Your task to perform on an android device: stop showing notifications on the lock screen Image 0: 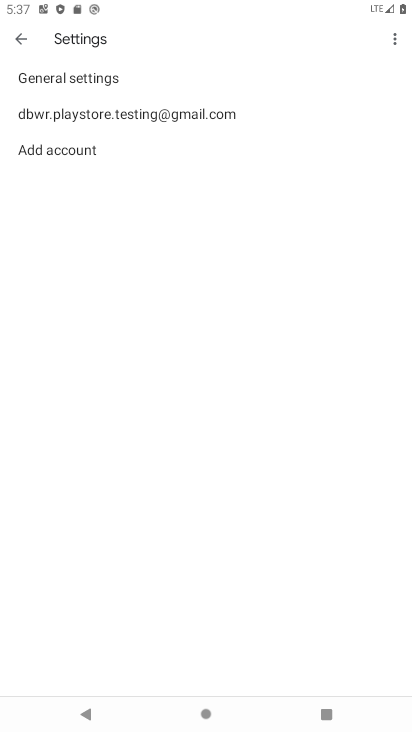
Step 0: press home button
Your task to perform on an android device: stop showing notifications on the lock screen Image 1: 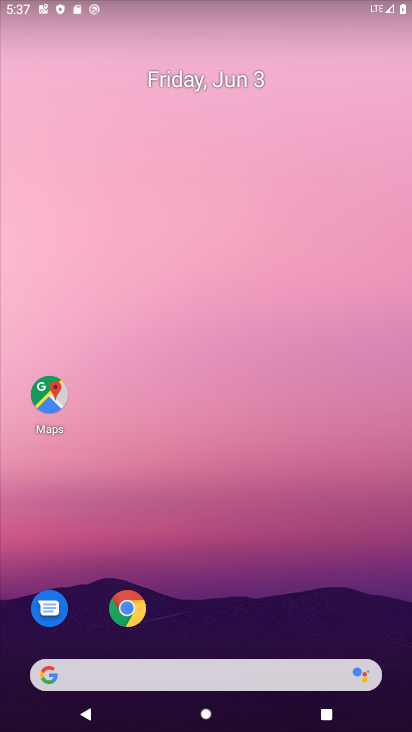
Step 1: drag from (285, 556) to (274, 349)
Your task to perform on an android device: stop showing notifications on the lock screen Image 2: 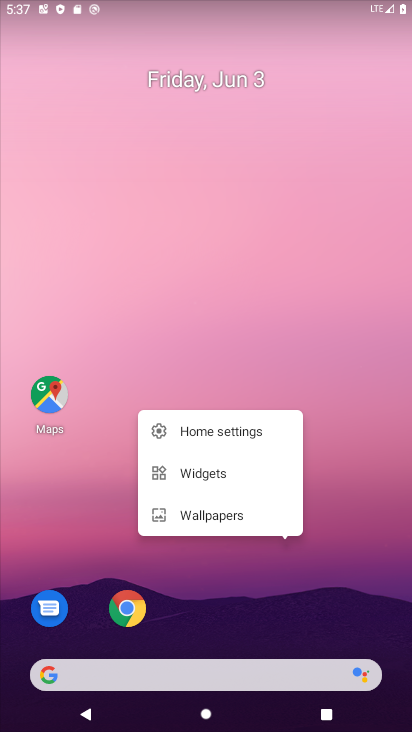
Step 2: click (273, 346)
Your task to perform on an android device: stop showing notifications on the lock screen Image 3: 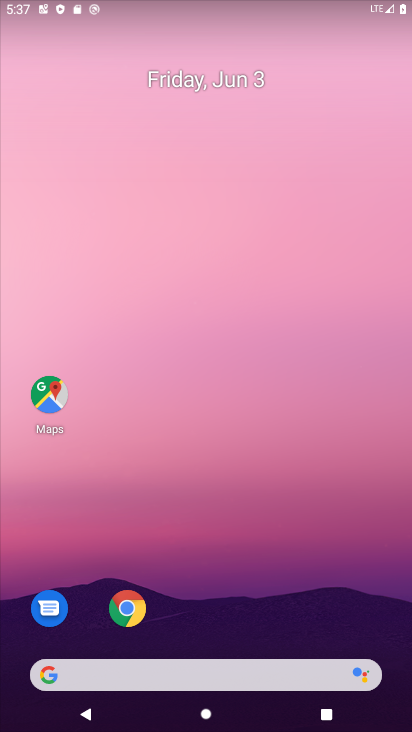
Step 3: drag from (298, 604) to (273, 214)
Your task to perform on an android device: stop showing notifications on the lock screen Image 4: 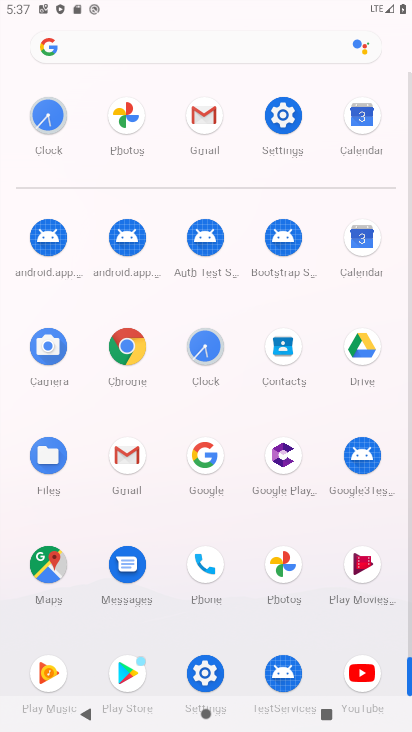
Step 4: click (285, 116)
Your task to perform on an android device: stop showing notifications on the lock screen Image 5: 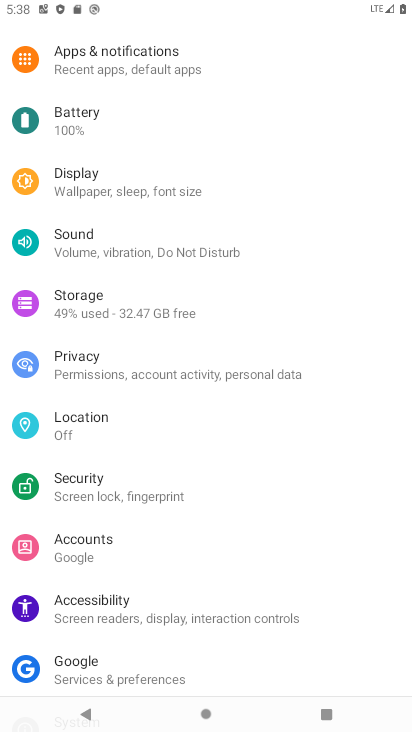
Step 5: click (119, 78)
Your task to perform on an android device: stop showing notifications on the lock screen Image 6: 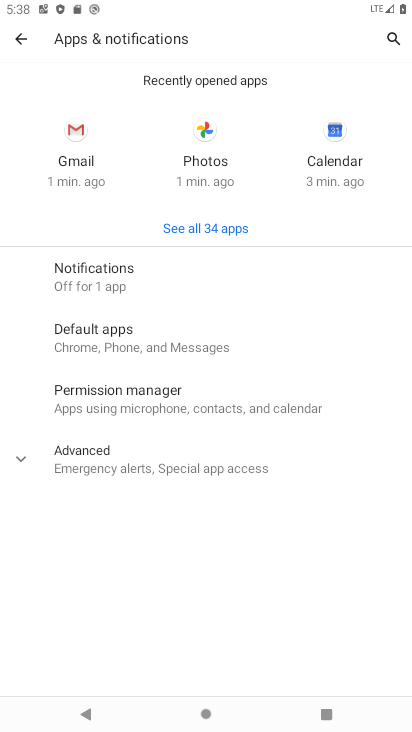
Step 6: click (103, 265)
Your task to perform on an android device: stop showing notifications on the lock screen Image 7: 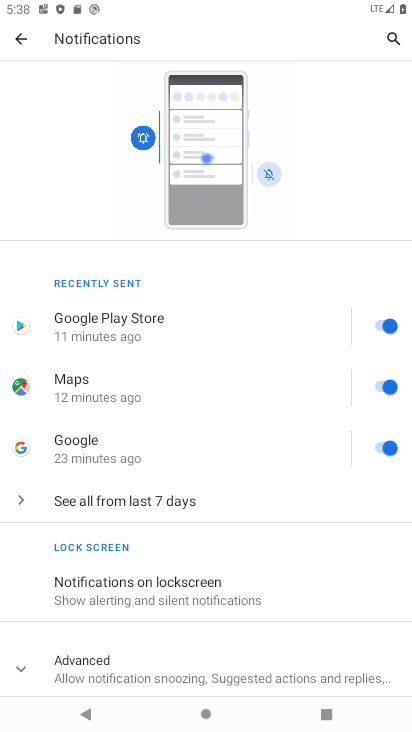
Step 7: click (176, 603)
Your task to perform on an android device: stop showing notifications on the lock screen Image 8: 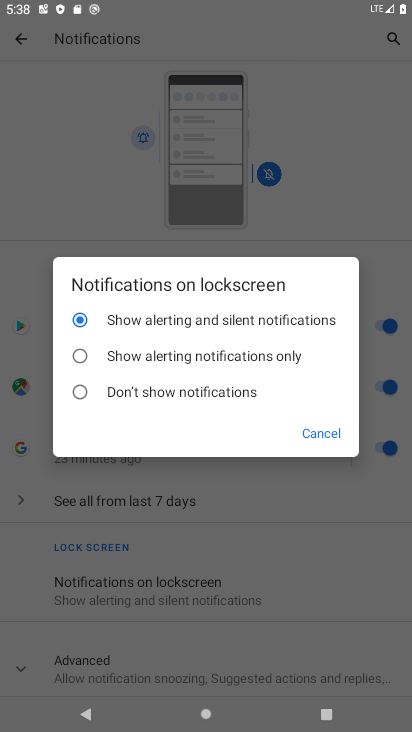
Step 8: click (200, 383)
Your task to perform on an android device: stop showing notifications on the lock screen Image 9: 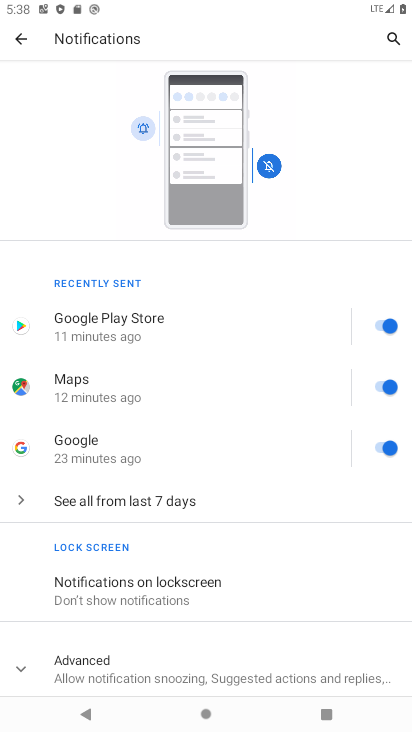
Step 9: task complete